Your task to perform on an android device: open app "eBay: The shopping marketplace" (install if not already installed) Image 0: 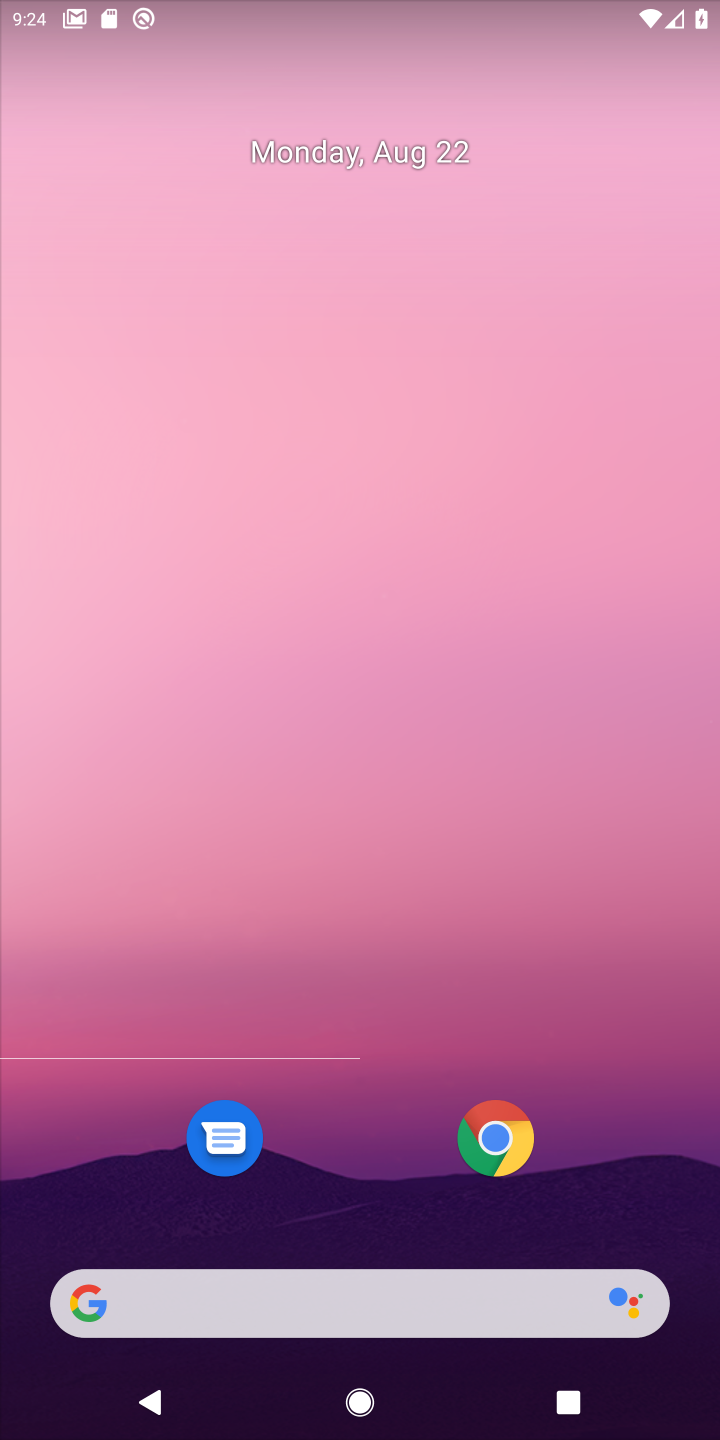
Step 0: press back button
Your task to perform on an android device: open app "eBay: The shopping marketplace" (install if not already installed) Image 1: 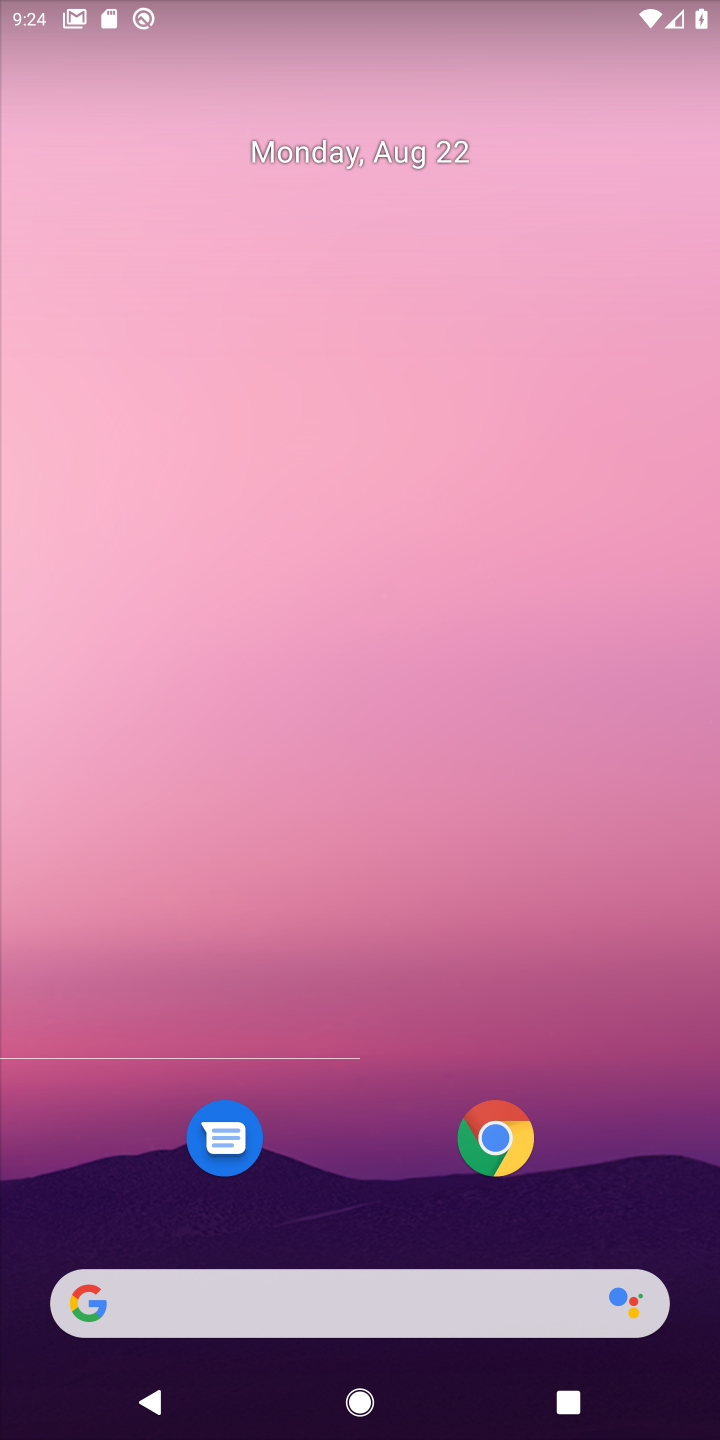
Step 1: press home button
Your task to perform on an android device: open app "eBay: The shopping marketplace" (install if not already installed) Image 2: 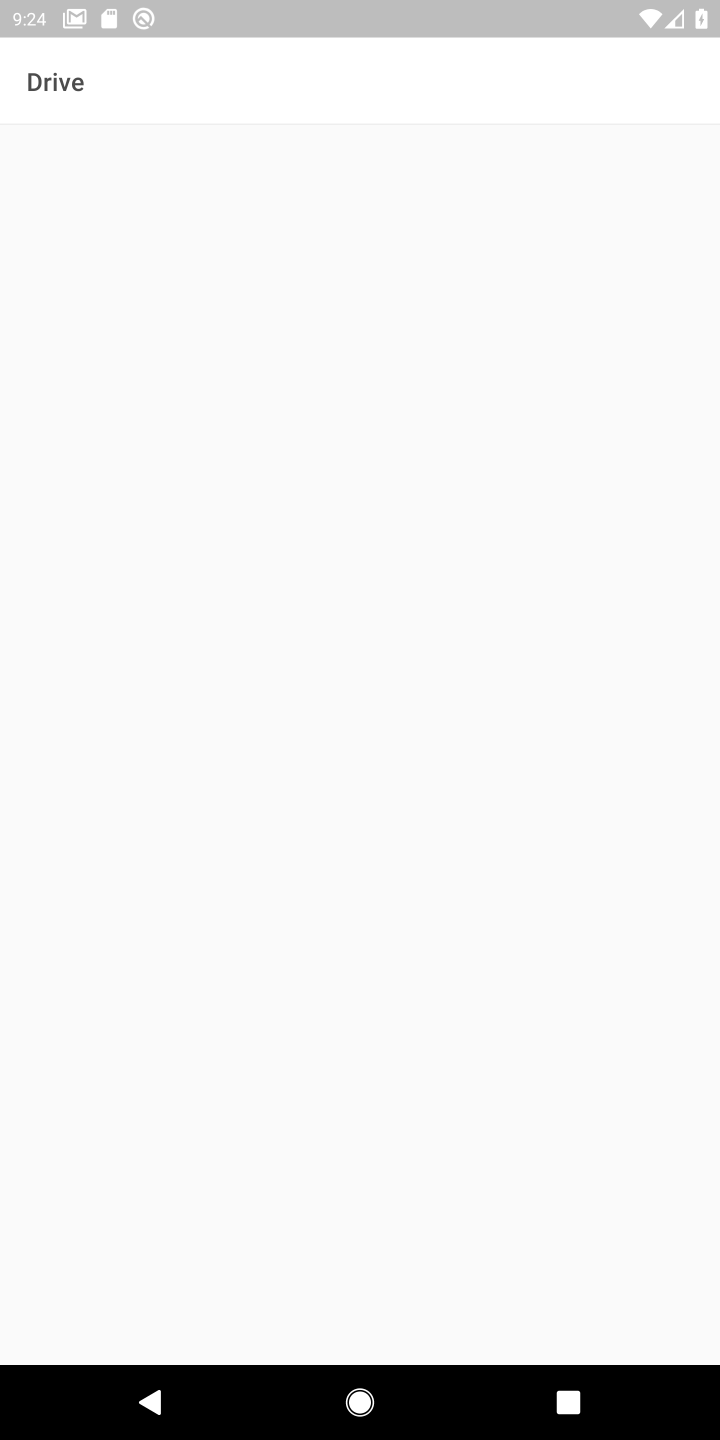
Step 2: drag from (275, 270) to (269, 139)
Your task to perform on an android device: open app "eBay: The shopping marketplace" (install if not already installed) Image 3: 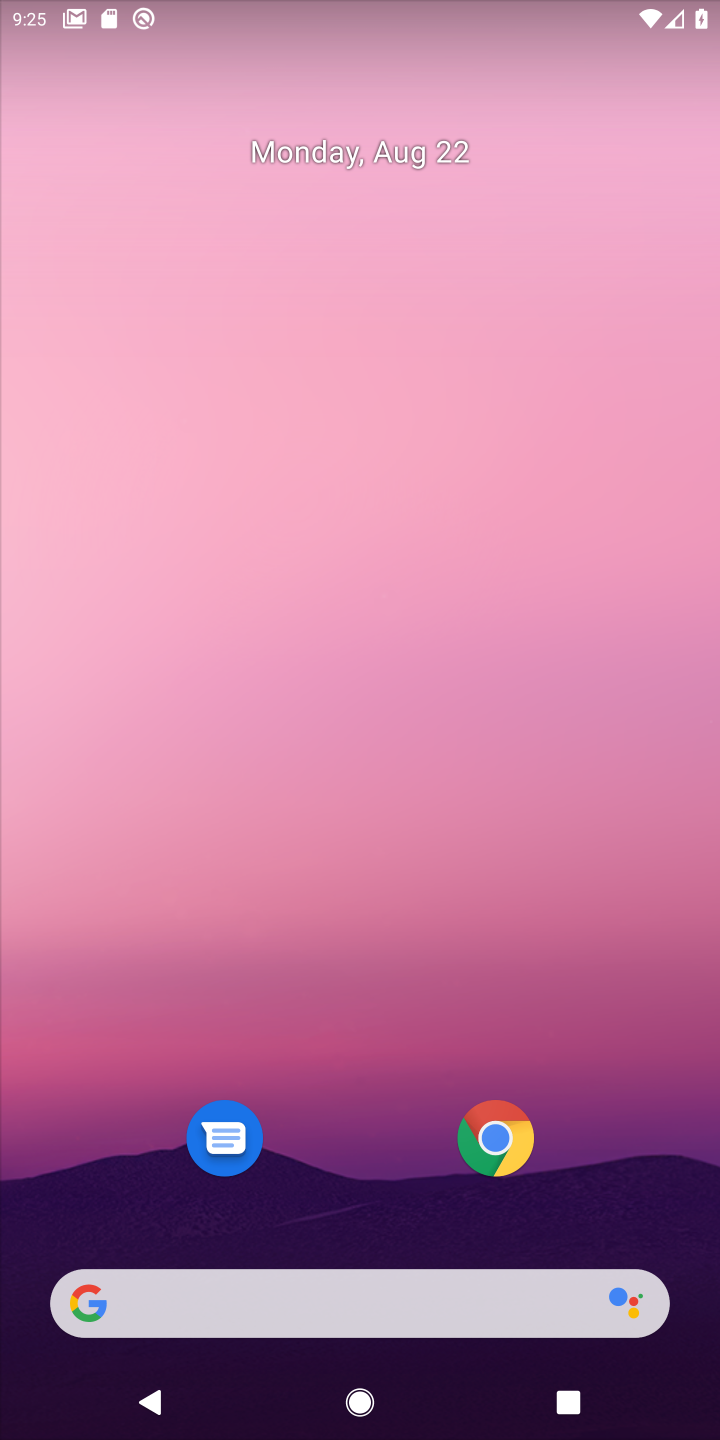
Step 3: drag from (313, 1260) to (237, 62)
Your task to perform on an android device: open app "eBay: The shopping marketplace" (install if not already installed) Image 4: 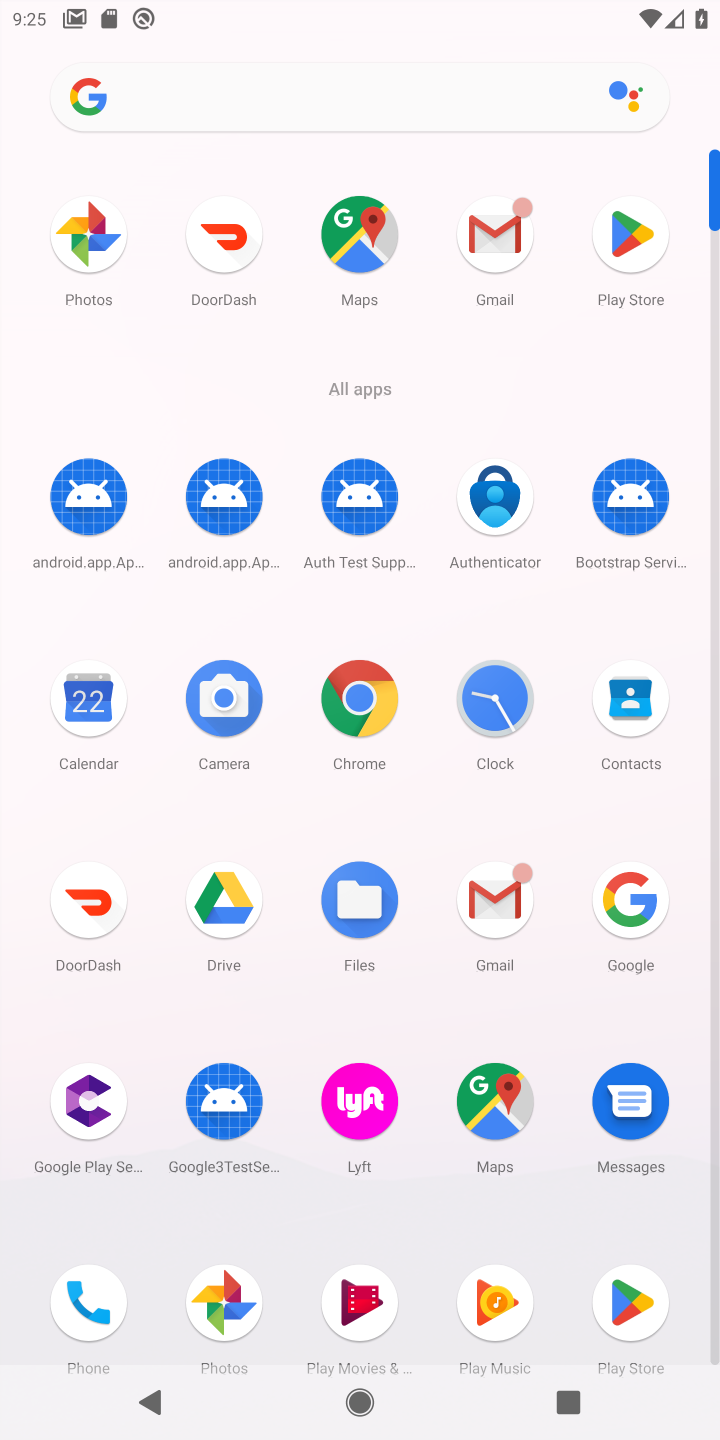
Step 4: click (626, 1303)
Your task to perform on an android device: open app "eBay: The shopping marketplace" (install if not already installed) Image 5: 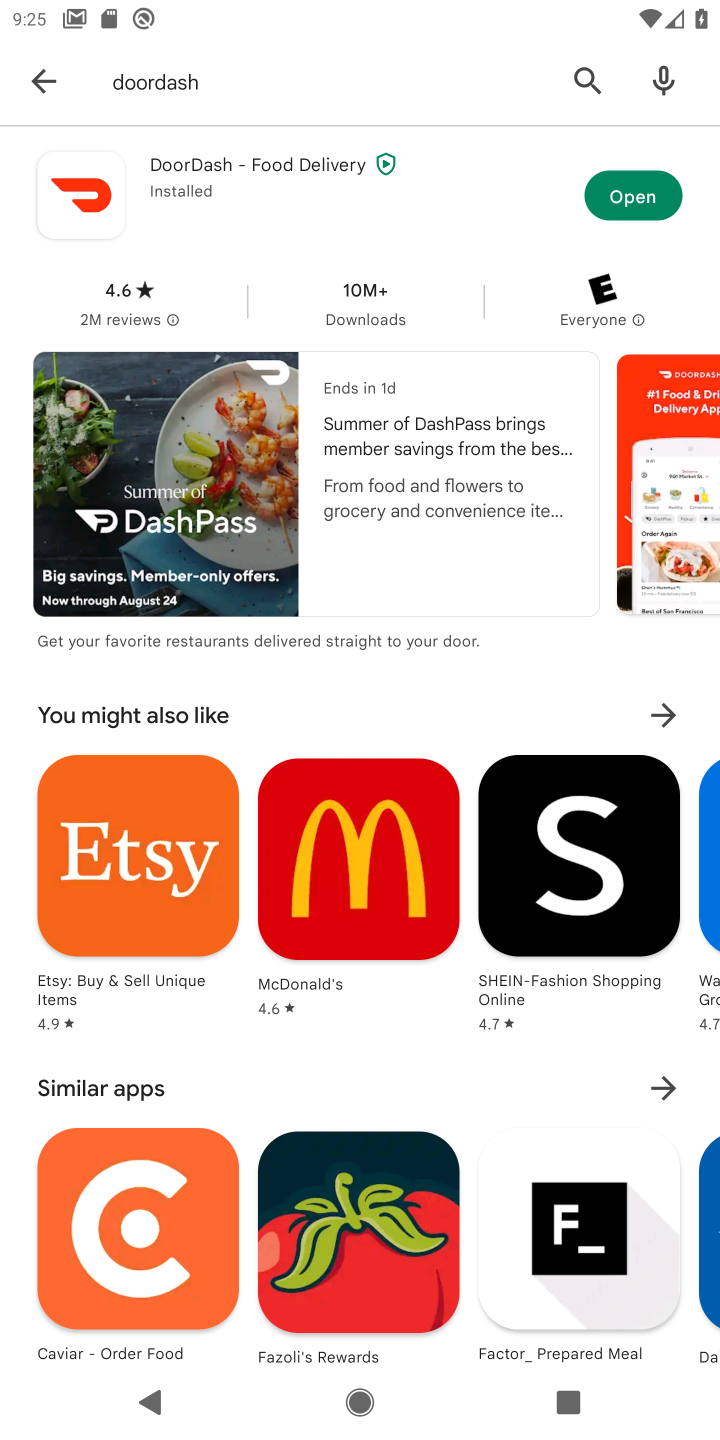
Step 5: click (18, 74)
Your task to perform on an android device: open app "eBay: The shopping marketplace" (install if not already installed) Image 6: 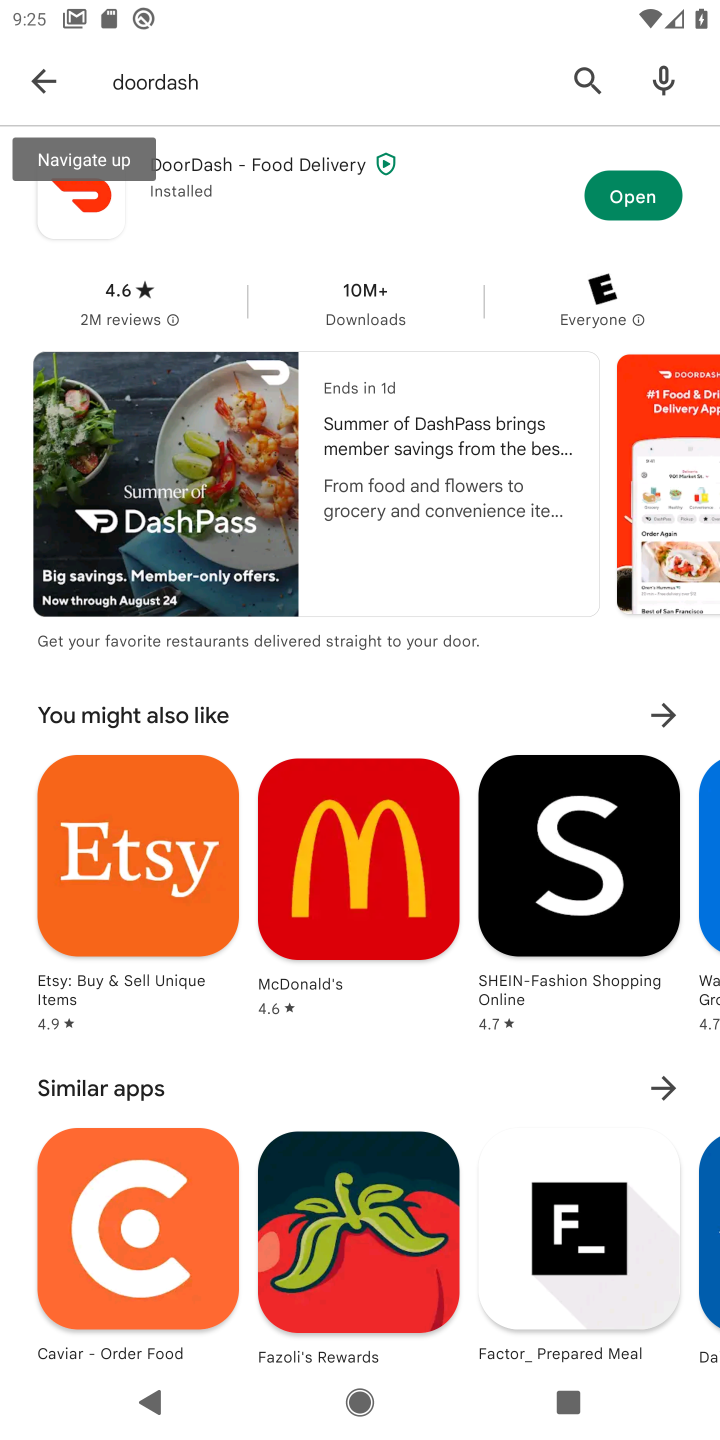
Step 6: click (568, 67)
Your task to perform on an android device: open app "eBay: The shopping marketplace" (install if not already installed) Image 7: 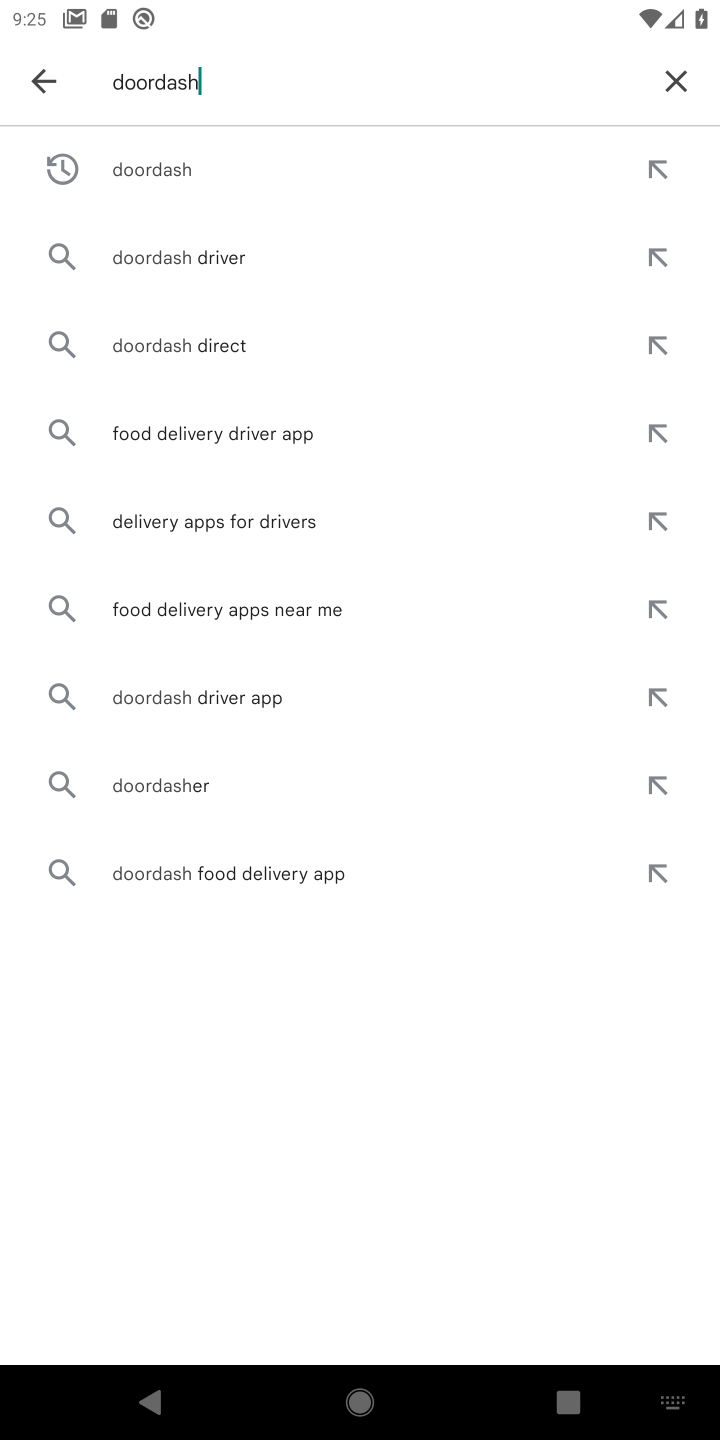
Step 7: click (669, 70)
Your task to perform on an android device: open app "eBay: The shopping marketplace" (install if not already installed) Image 8: 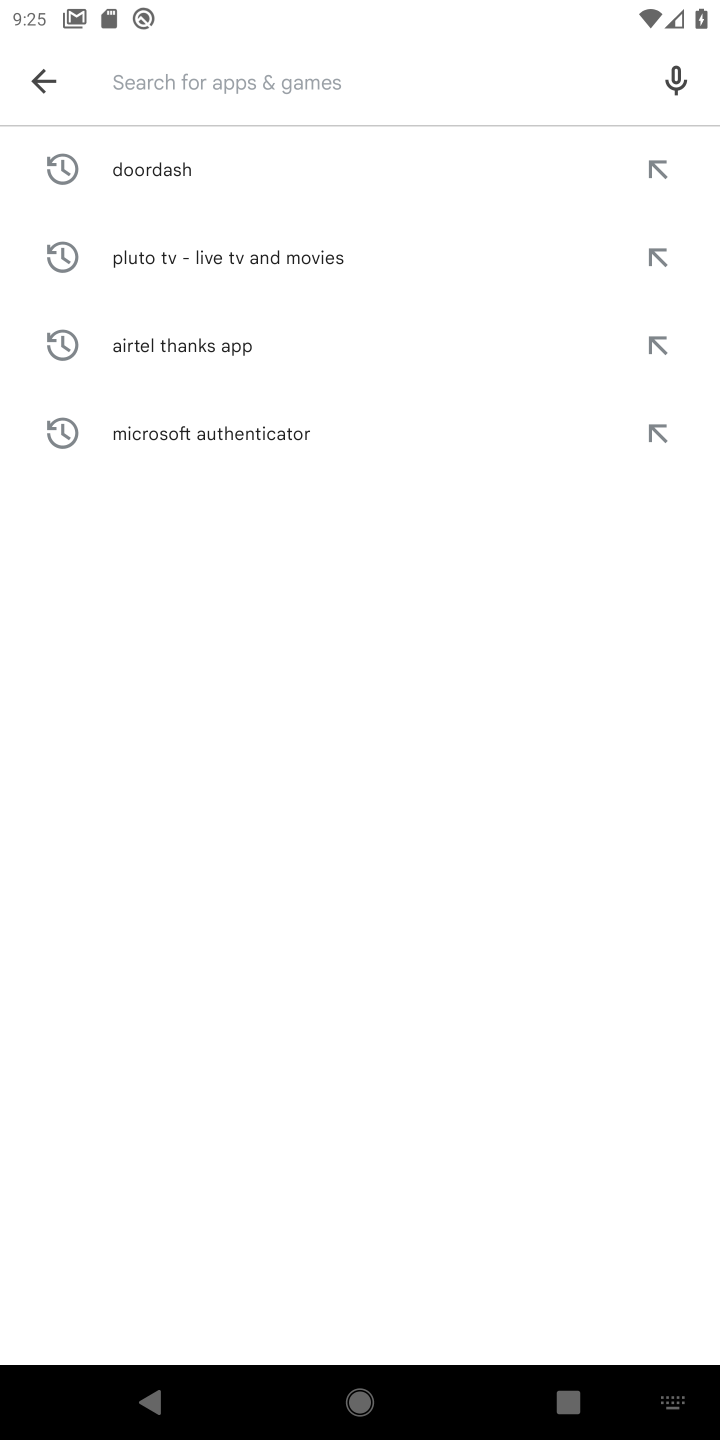
Step 8: type "eBay: The shopping marketplace"
Your task to perform on an android device: open app "eBay: The shopping marketplace" (install if not already installed) Image 9: 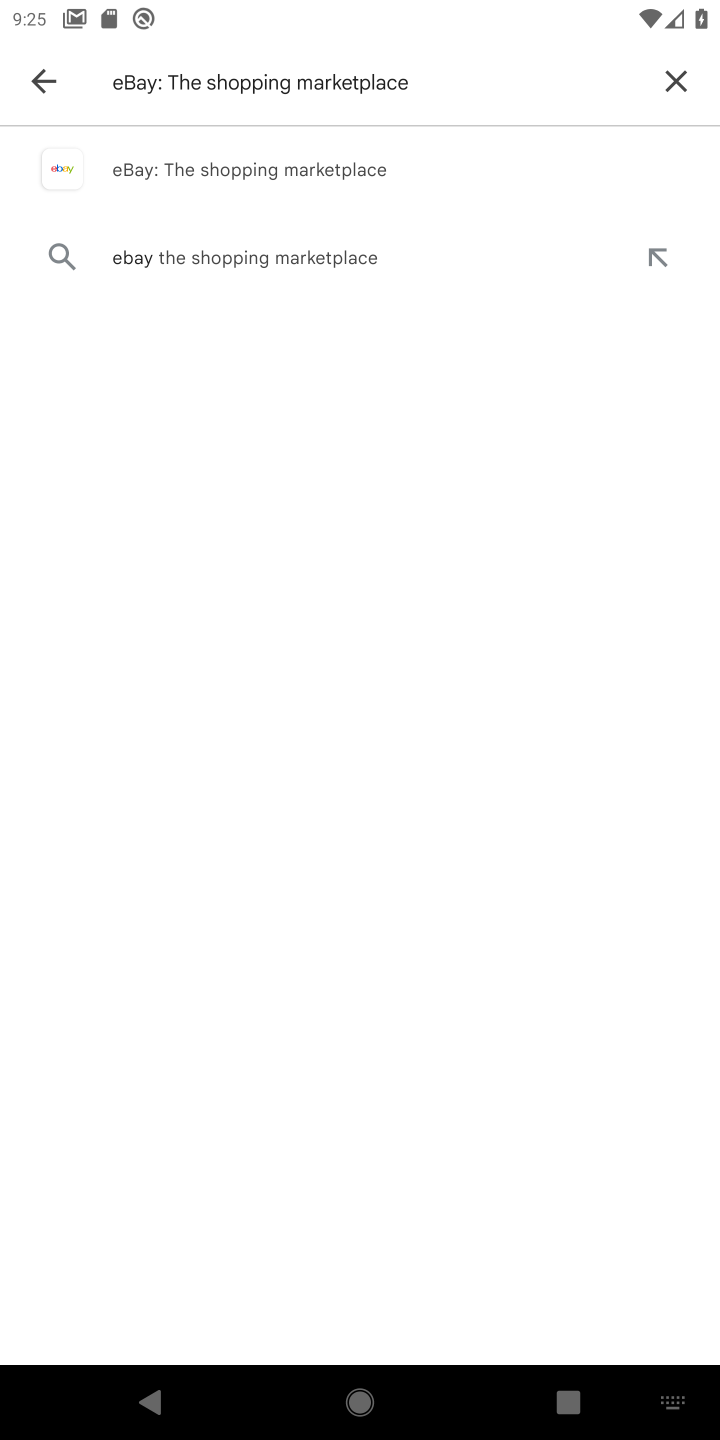
Step 9: click (143, 154)
Your task to perform on an android device: open app "eBay: The shopping marketplace" (install if not already installed) Image 10: 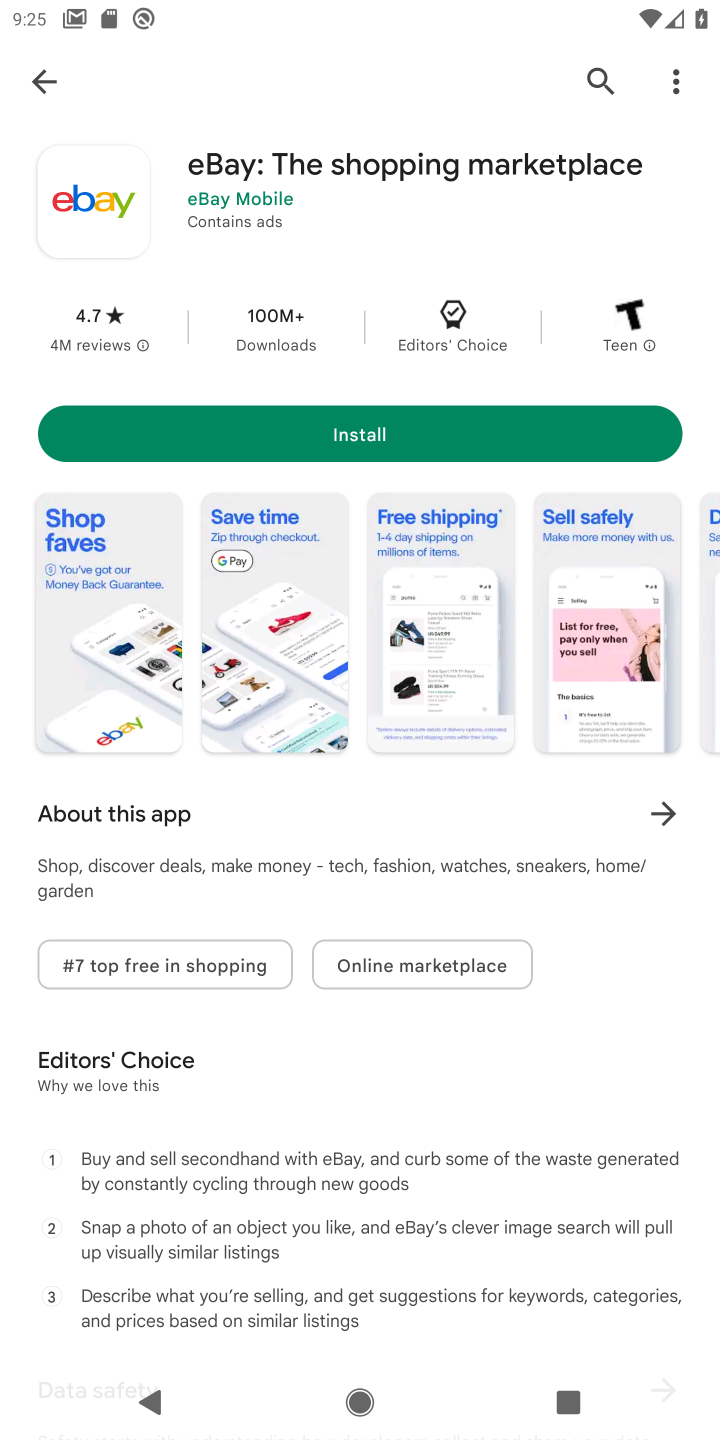
Step 10: click (389, 415)
Your task to perform on an android device: open app "eBay: The shopping marketplace" (install if not already installed) Image 11: 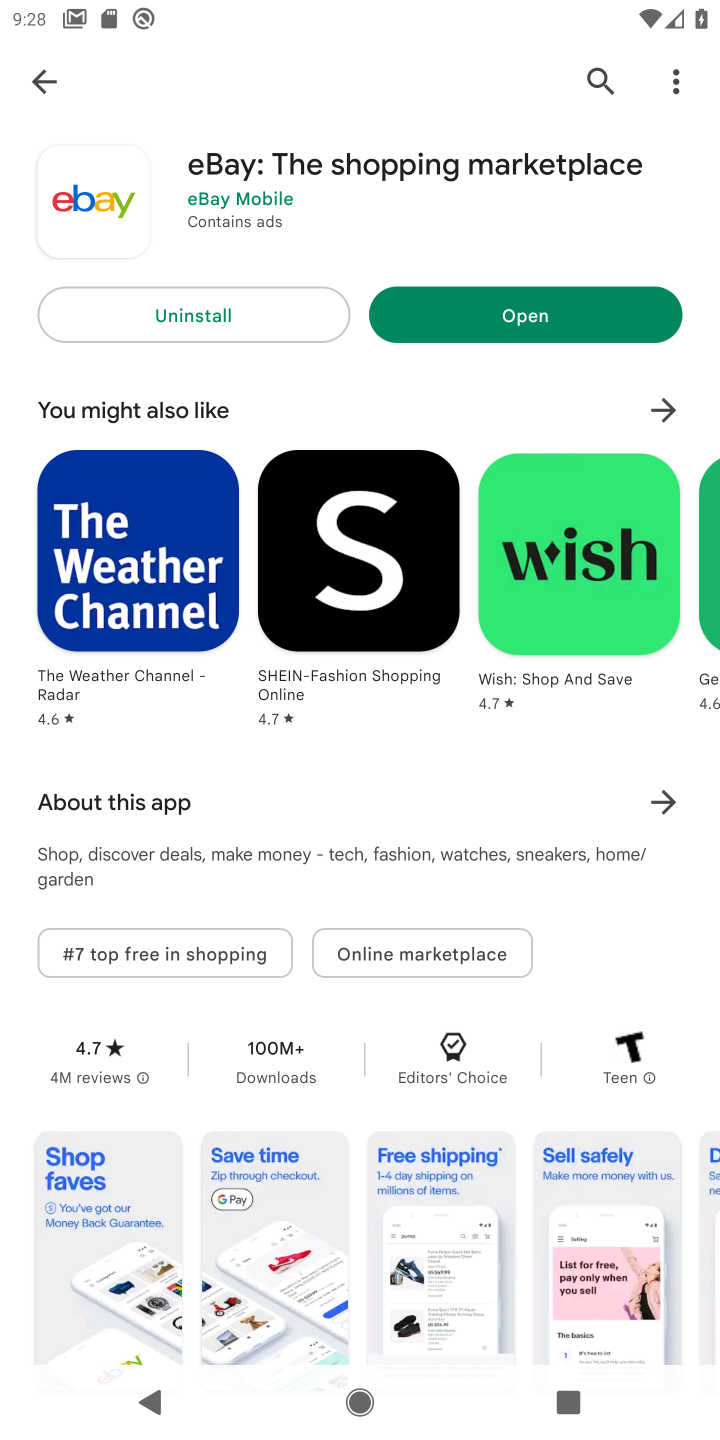
Step 11: click (536, 306)
Your task to perform on an android device: open app "eBay: The shopping marketplace" (install if not already installed) Image 12: 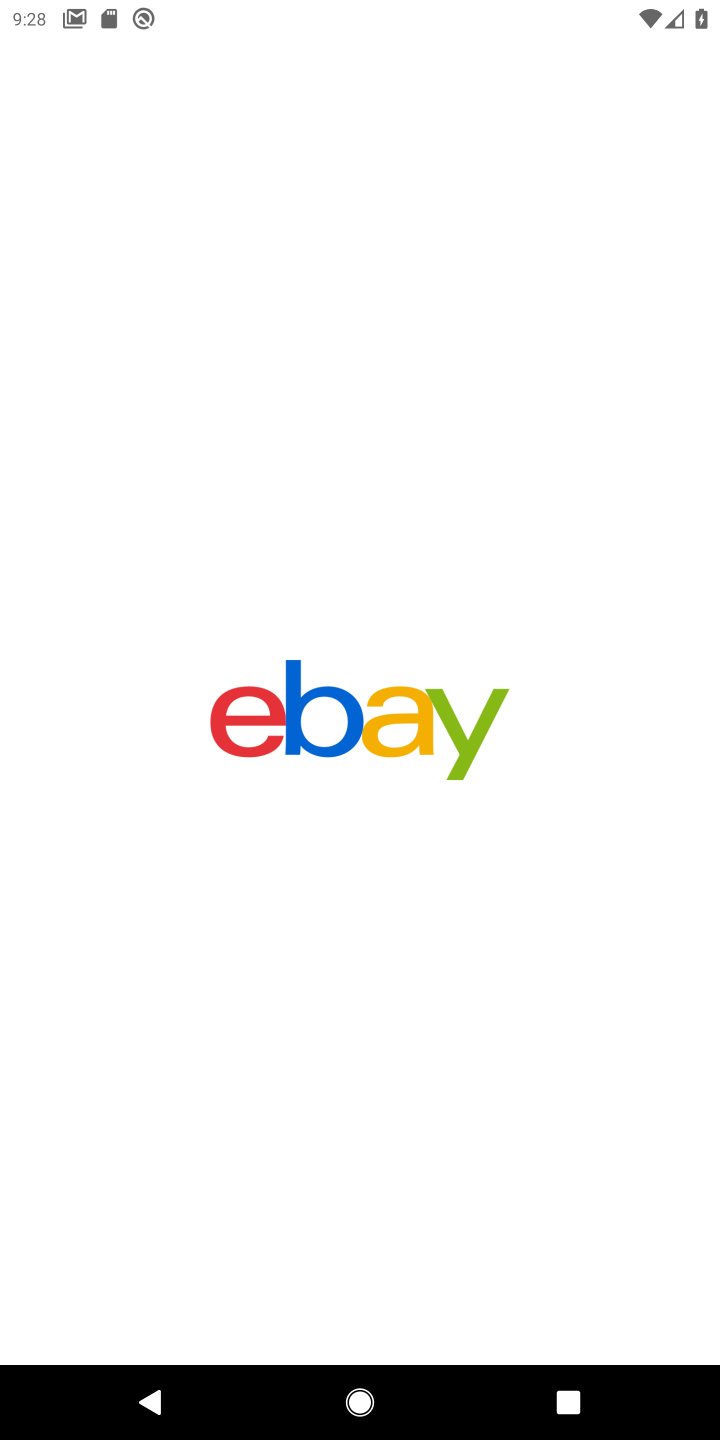
Step 12: task complete